Your task to perform on an android device: set the timer Image 0: 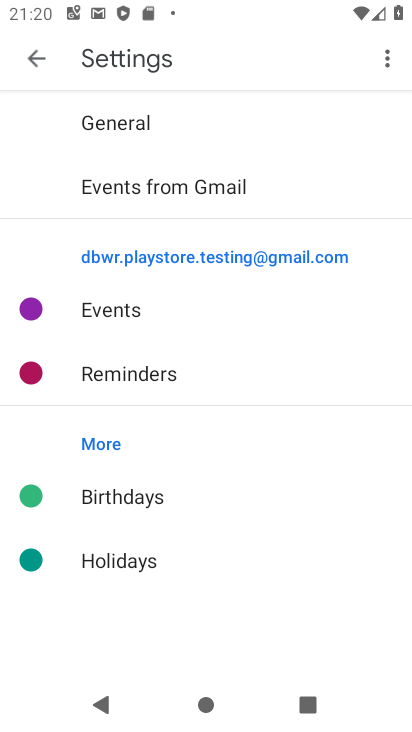
Step 0: press home button
Your task to perform on an android device: set the timer Image 1: 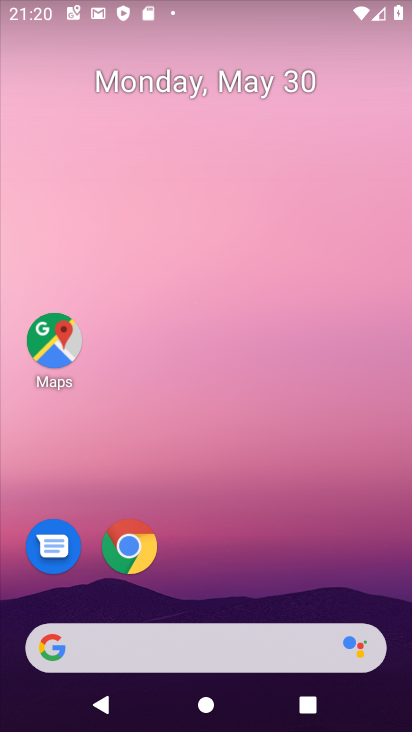
Step 1: drag from (338, 572) to (322, 125)
Your task to perform on an android device: set the timer Image 2: 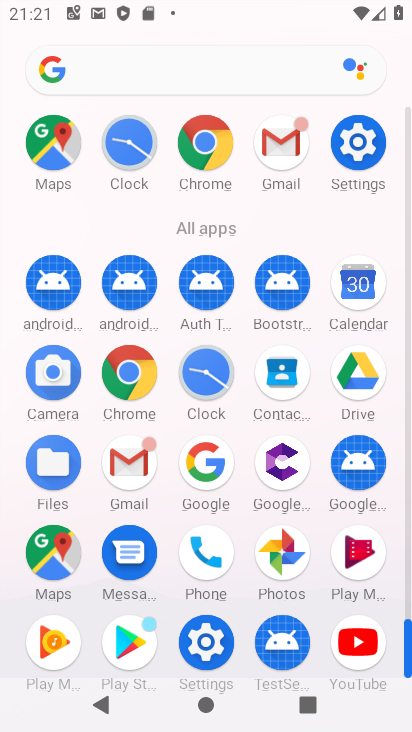
Step 2: click (199, 379)
Your task to perform on an android device: set the timer Image 3: 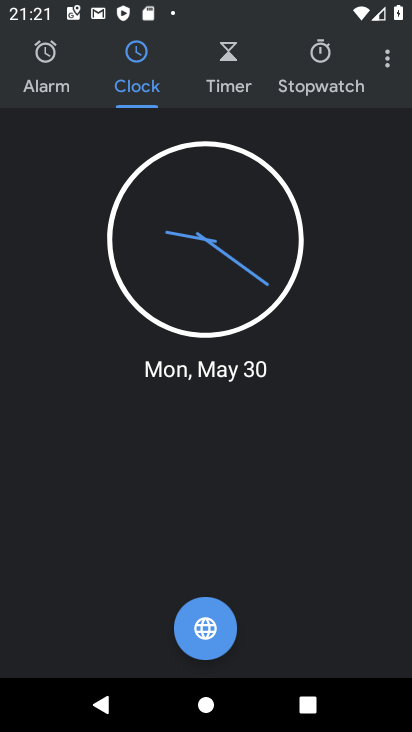
Step 3: drag from (389, 72) to (14, 225)
Your task to perform on an android device: set the timer Image 4: 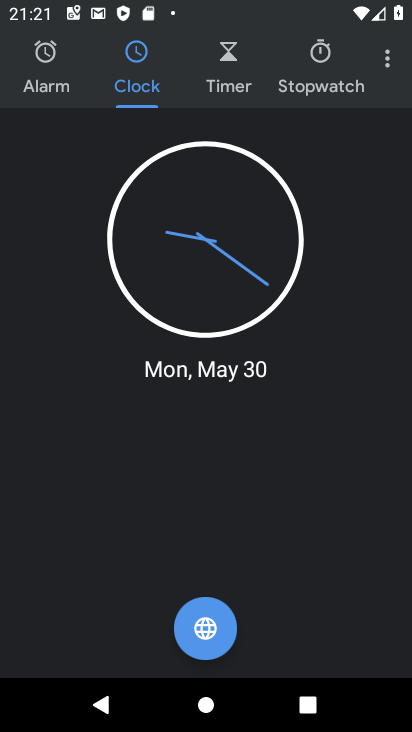
Step 4: click (50, 169)
Your task to perform on an android device: set the timer Image 5: 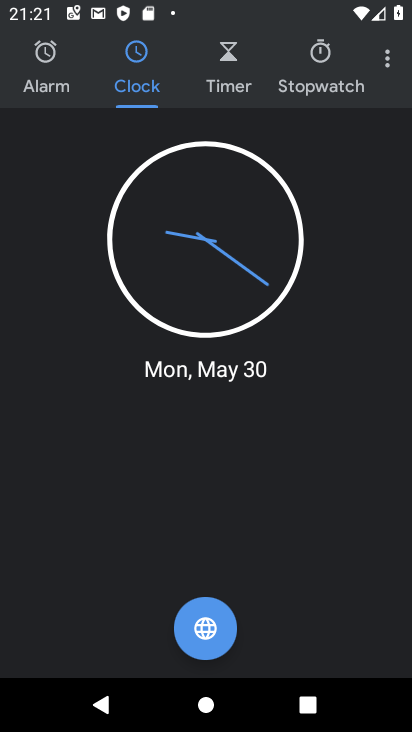
Step 5: click (225, 85)
Your task to perform on an android device: set the timer Image 6: 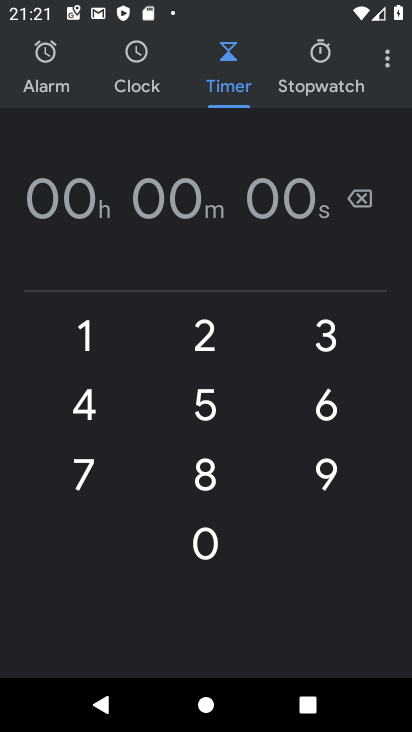
Step 6: click (99, 333)
Your task to perform on an android device: set the timer Image 7: 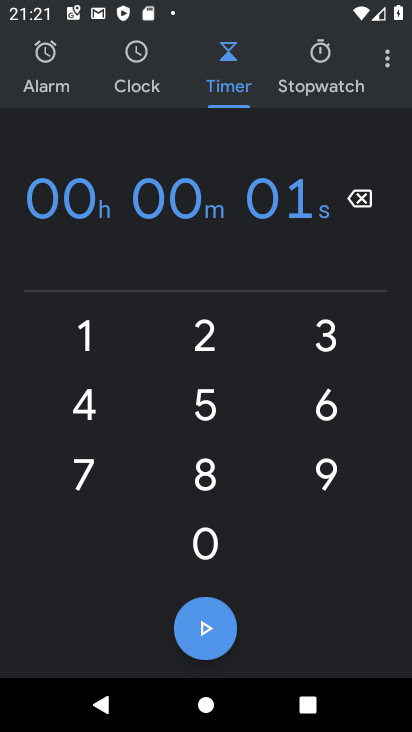
Step 7: click (201, 407)
Your task to perform on an android device: set the timer Image 8: 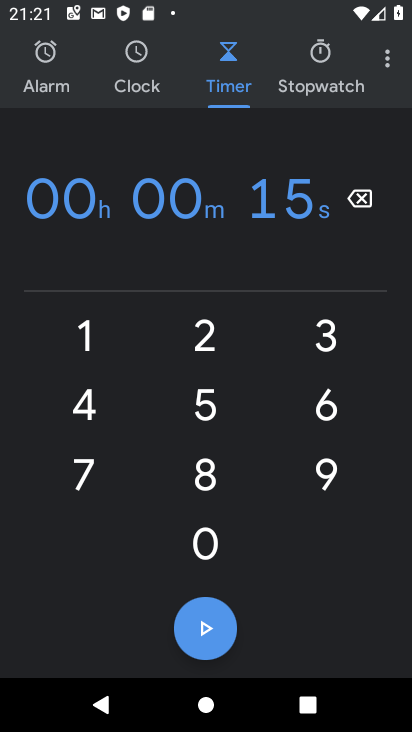
Step 8: task complete